Your task to perform on an android device: open a new tab in the chrome app Image 0: 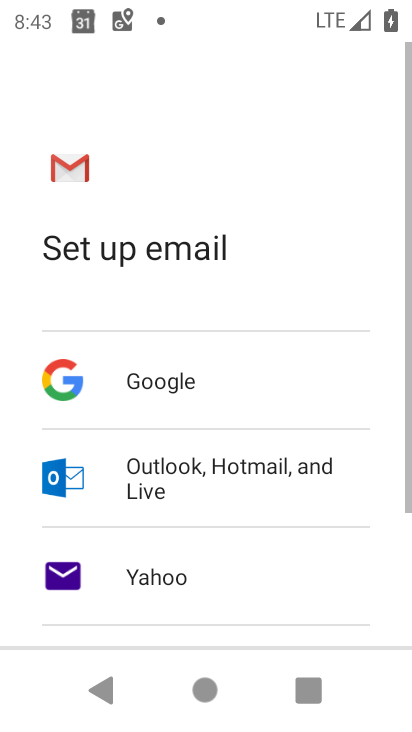
Step 0: press home button
Your task to perform on an android device: open a new tab in the chrome app Image 1: 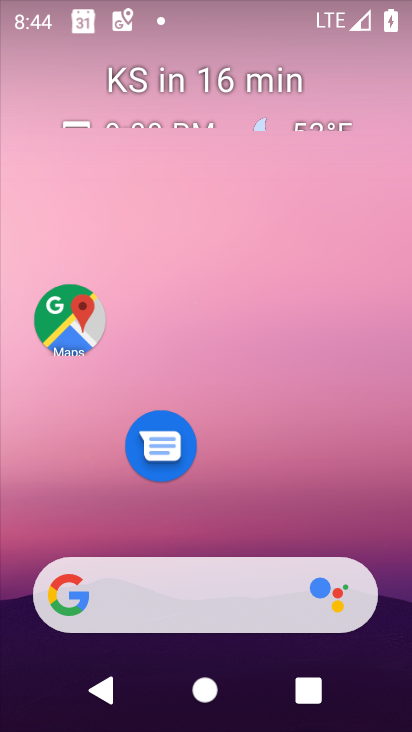
Step 1: drag from (197, 542) to (180, 0)
Your task to perform on an android device: open a new tab in the chrome app Image 2: 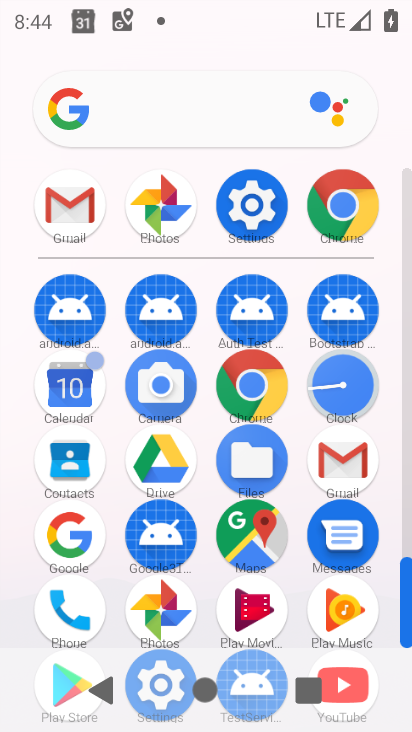
Step 2: click (328, 212)
Your task to perform on an android device: open a new tab in the chrome app Image 3: 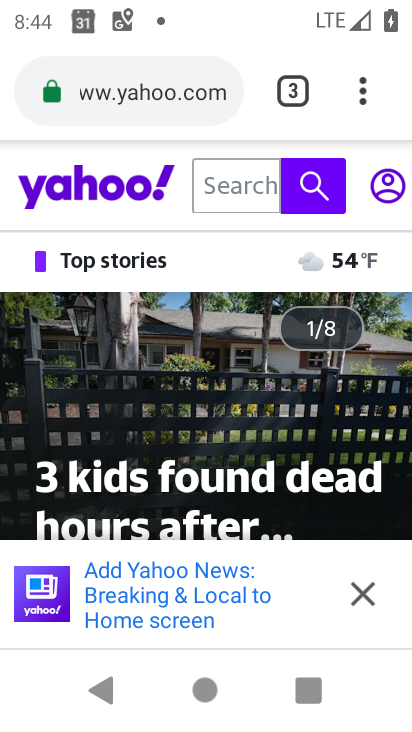
Step 3: click (283, 91)
Your task to perform on an android device: open a new tab in the chrome app Image 4: 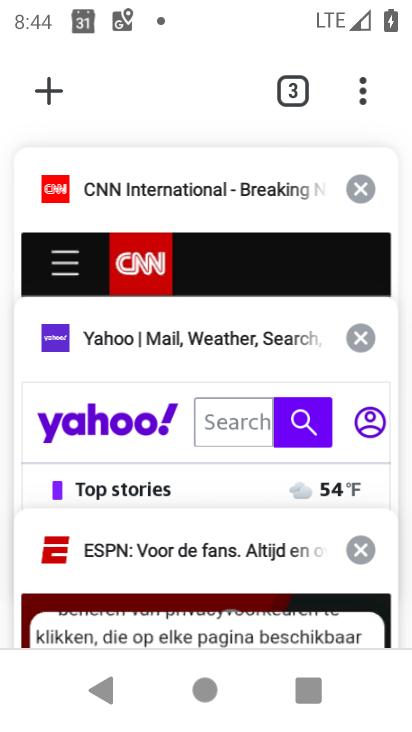
Step 4: click (38, 82)
Your task to perform on an android device: open a new tab in the chrome app Image 5: 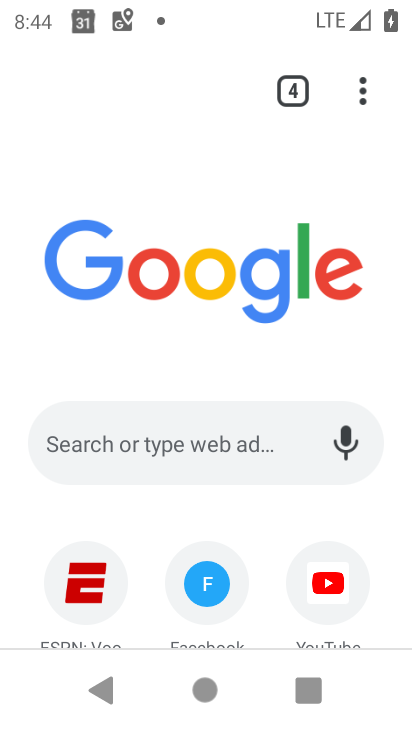
Step 5: task complete